Your task to perform on an android device: Open calendar and show me the first week of next month Image 0: 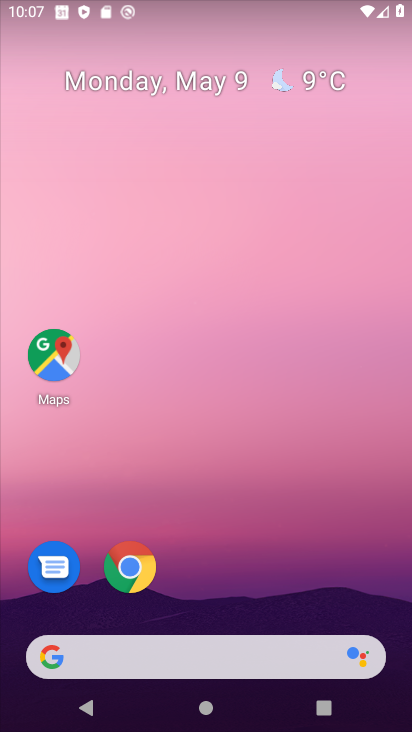
Step 0: drag from (209, 612) to (214, 10)
Your task to perform on an android device: Open calendar and show me the first week of next month Image 1: 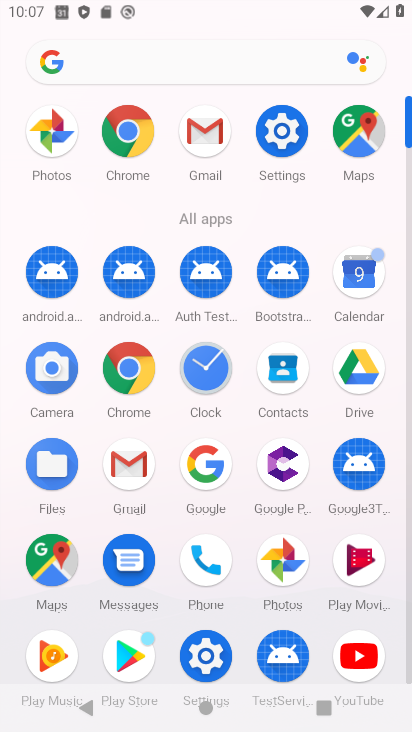
Step 1: click (356, 269)
Your task to perform on an android device: Open calendar and show me the first week of next month Image 2: 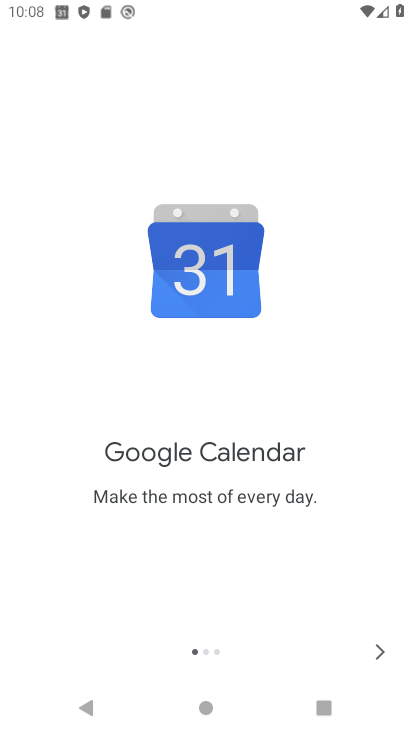
Step 2: click (372, 645)
Your task to perform on an android device: Open calendar and show me the first week of next month Image 3: 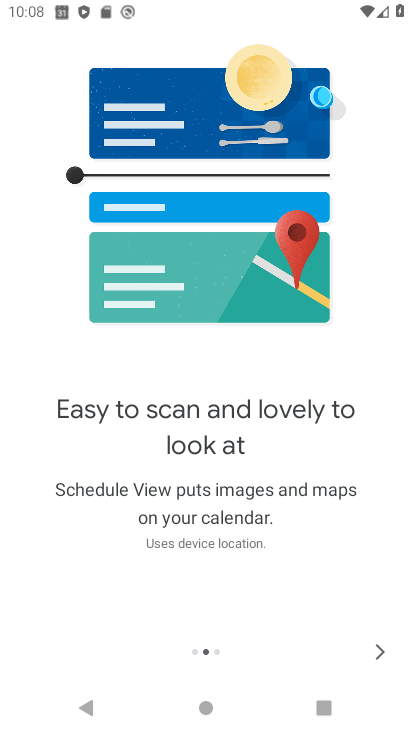
Step 3: click (373, 644)
Your task to perform on an android device: Open calendar and show me the first week of next month Image 4: 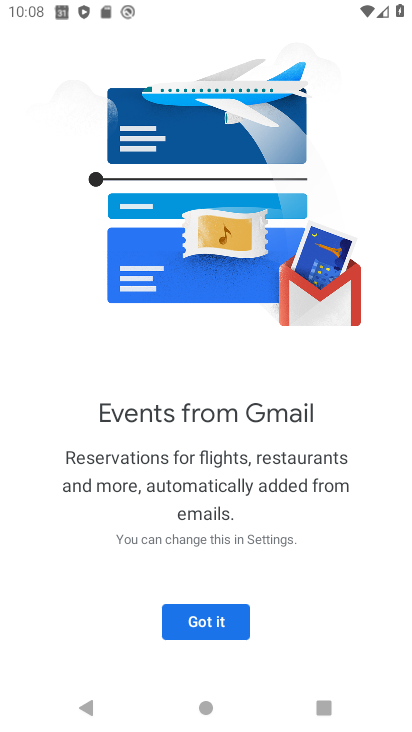
Step 4: click (209, 620)
Your task to perform on an android device: Open calendar and show me the first week of next month Image 5: 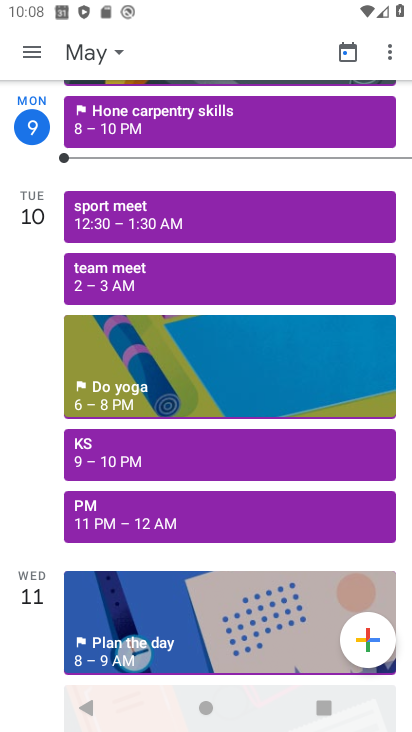
Step 5: click (24, 58)
Your task to perform on an android device: Open calendar and show me the first week of next month Image 6: 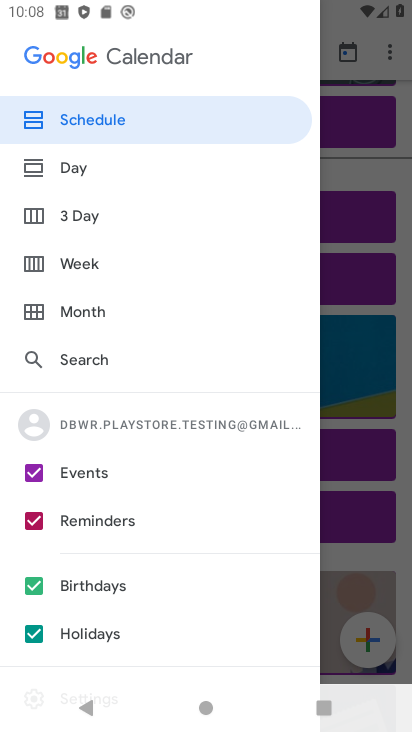
Step 6: click (82, 261)
Your task to perform on an android device: Open calendar and show me the first week of next month Image 7: 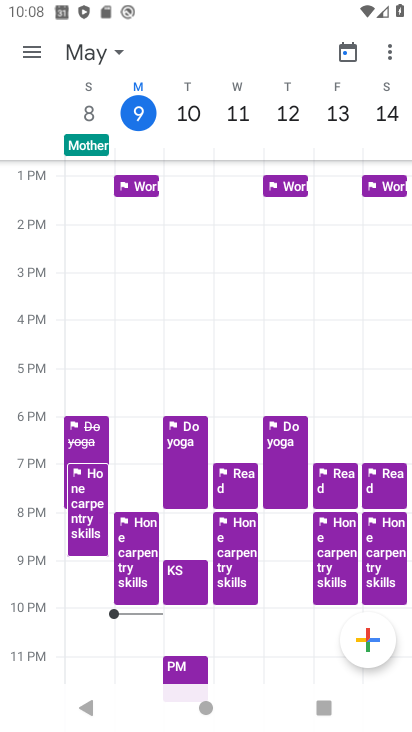
Step 7: drag from (385, 116) to (32, 114)
Your task to perform on an android device: Open calendar and show me the first week of next month Image 8: 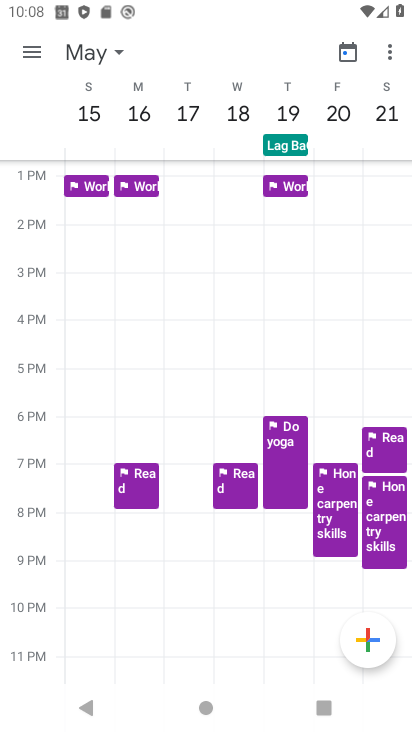
Step 8: drag from (395, 116) to (29, 115)
Your task to perform on an android device: Open calendar and show me the first week of next month Image 9: 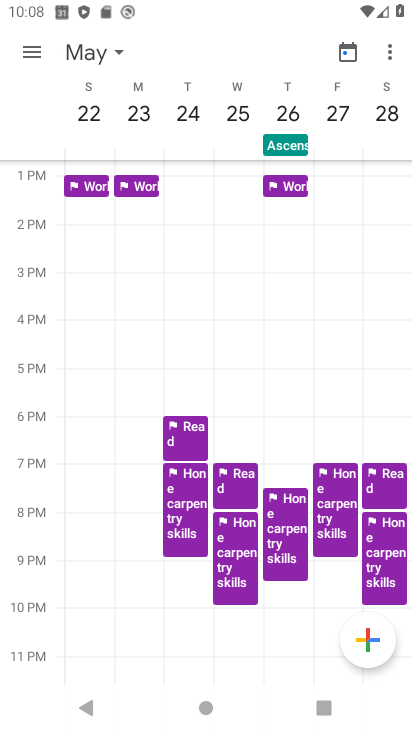
Step 9: drag from (392, 113) to (4, 119)
Your task to perform on an android device: Open calendar and show me the first week of next month Image 10: 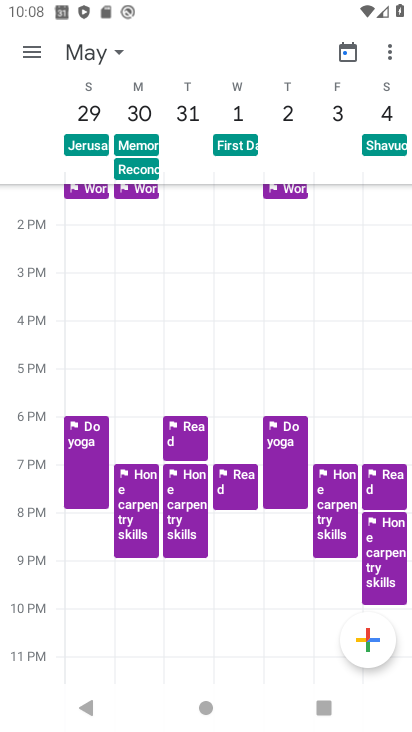
Step 10: drag from (388, 111) to (32, 110)
Your task to perform on an android device: Open calendar and show me the first week of next month Image 11: 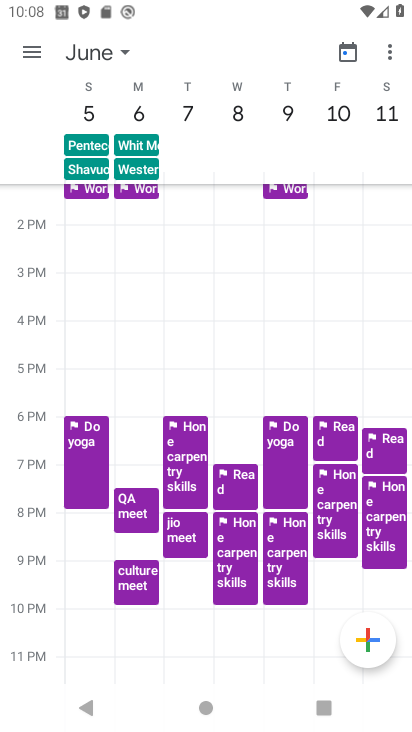
Step 11: drag from (381, 104) to (24, 124)
Your task to perform on an android device: Open calendar and show me the first week of next month Image 12: 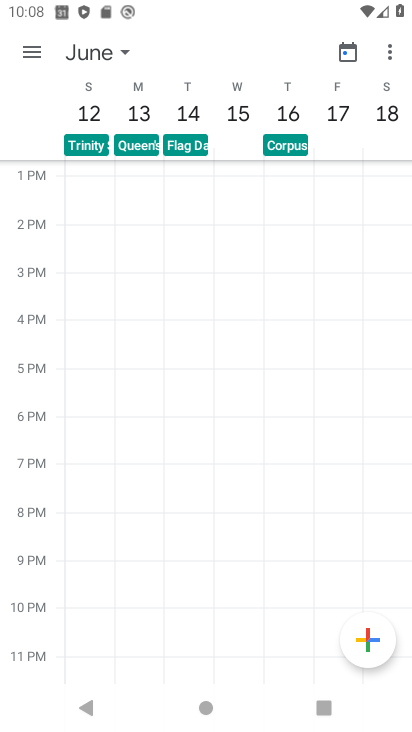
Step 12: drag from (67, 107) to (366, 111)
Your task to perform on an android device: Open calendar and show me the first week of next month Image 13: 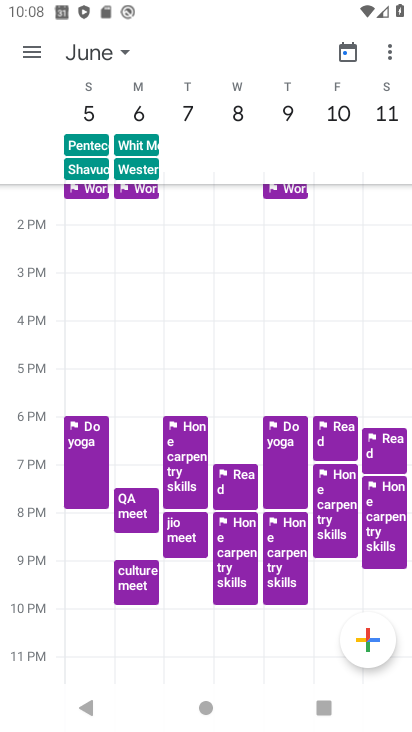
Step 13: click (87, 108)
Your task to perform on an android device: Open calendar and show me the first week of next month Image 14: 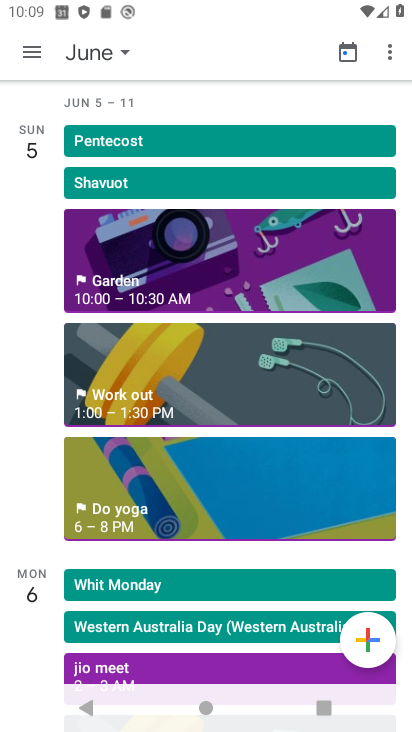
Step 14: drag from (33, 490) to (28, 102)
Your task to perform on an android device: Open calendar and show me the first week of next month Image 15: 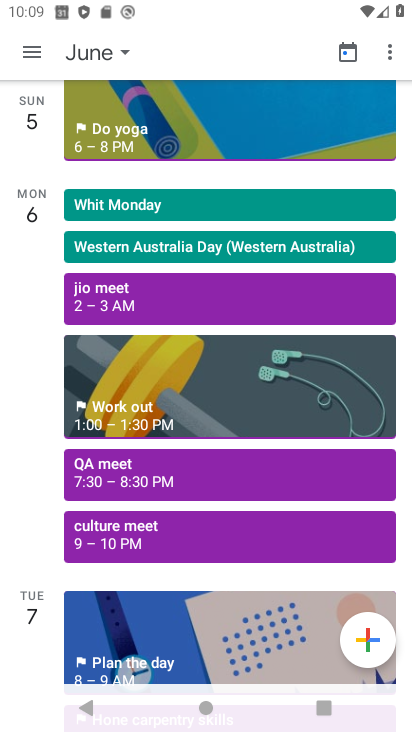
Step 15: drag from (39, 471) to (42, 283)
Your task to perform on an android device: Open calendar and show me the first week of next month Image 16: 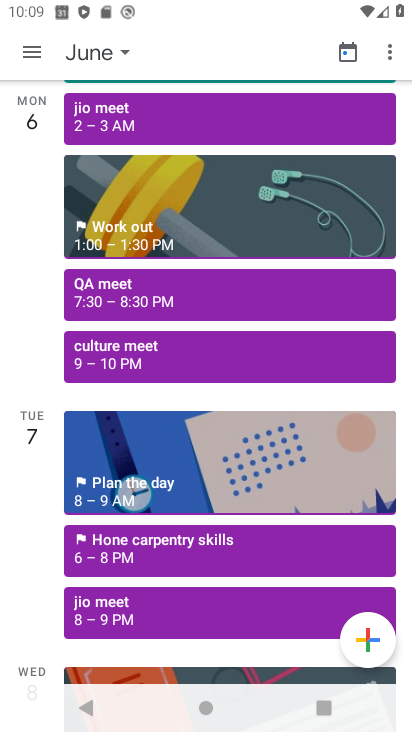
Step 16: click (49, 219)
Your task to perform on an android device: Open calendar and show me the first week of next month Image 17: 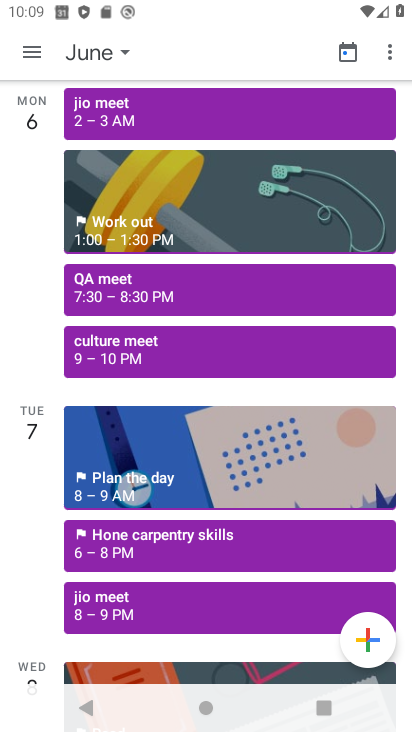
Step 17: task complete